Your task to perform on an android device: What's the weather going to be this weekend? Image 0: 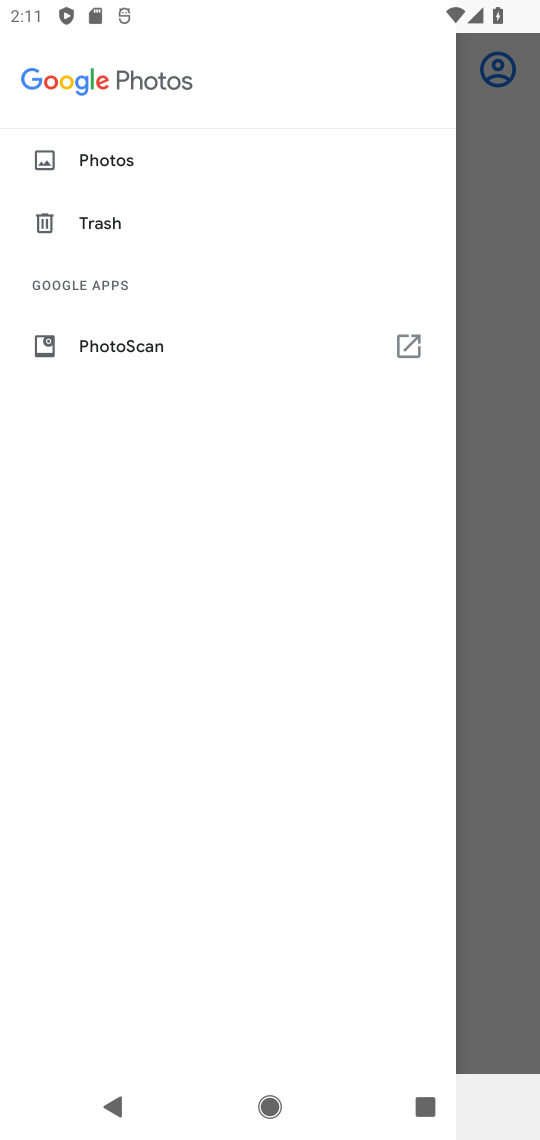
Step 0: press home button
Your task to perform on an android device: What's the weather going to be this weekend? Image 1: 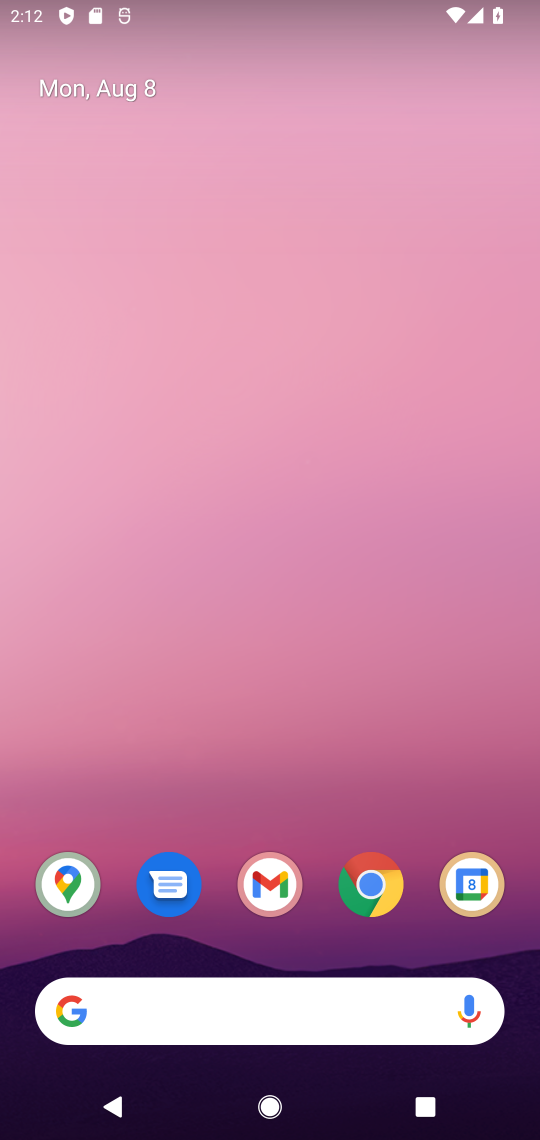
Step 1: click (205, 1005)
Your task to perform on an android device: What's the weather going to be this weekend? Image 2: 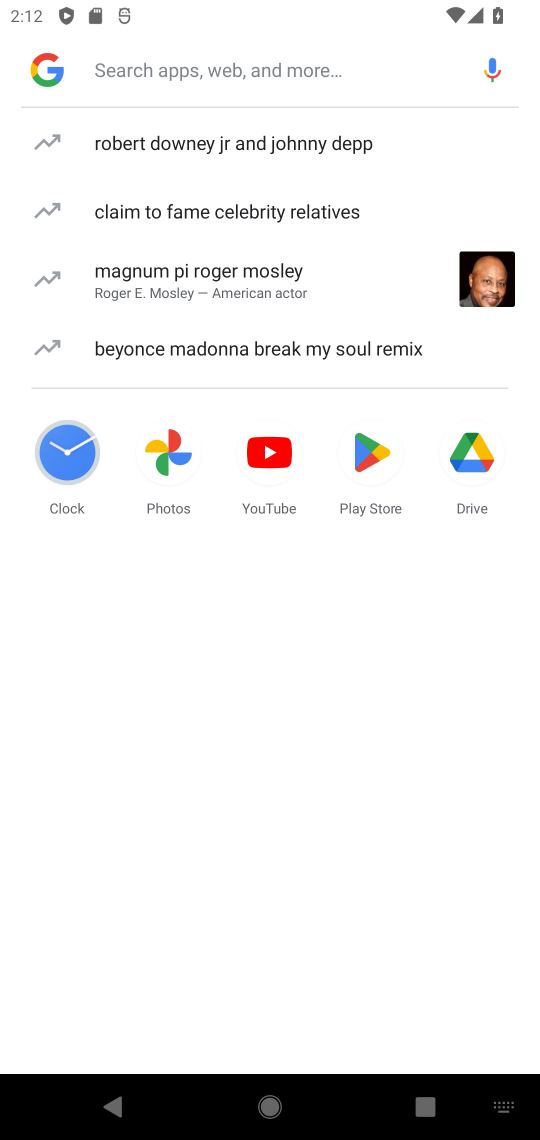
Step 2: type "Is it going to rain tomorrow"
Your task to perform on an android device: What's the weather going to be this weekend? Image 3: 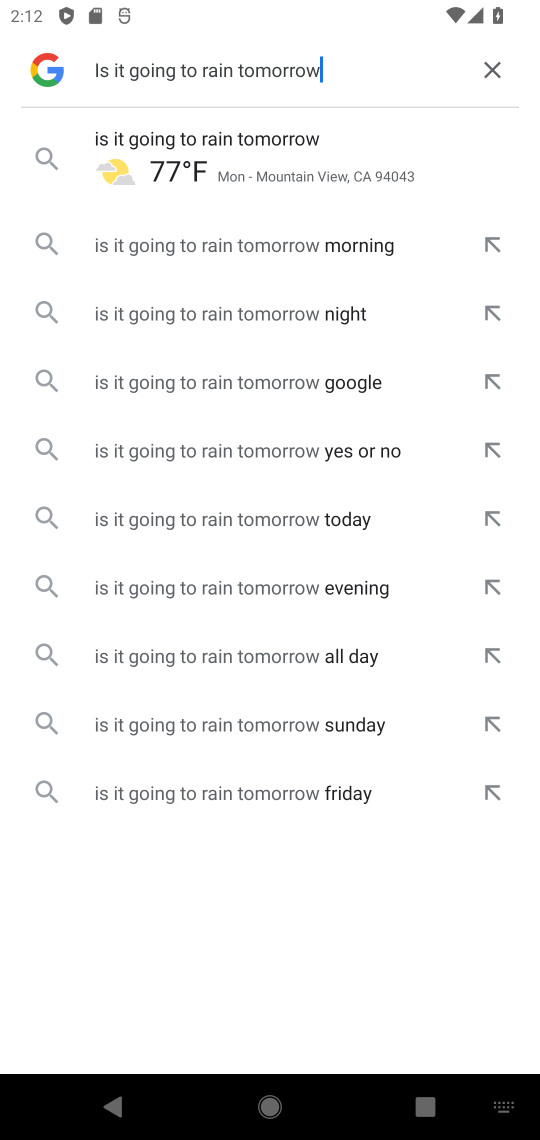
Step 3: click (201, 132)
Your task to perform on an android device: What's the weather going to be this weekend? Image 4: 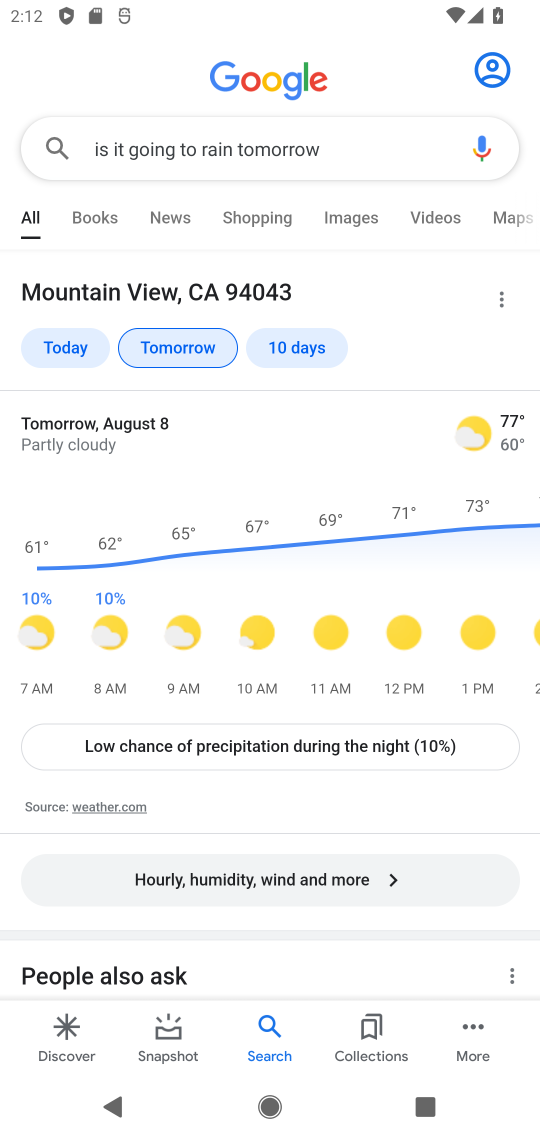
Step 4: click (282, 338)
Your task to perform on an android device: What's the weather going to be this weekend? Image 5: 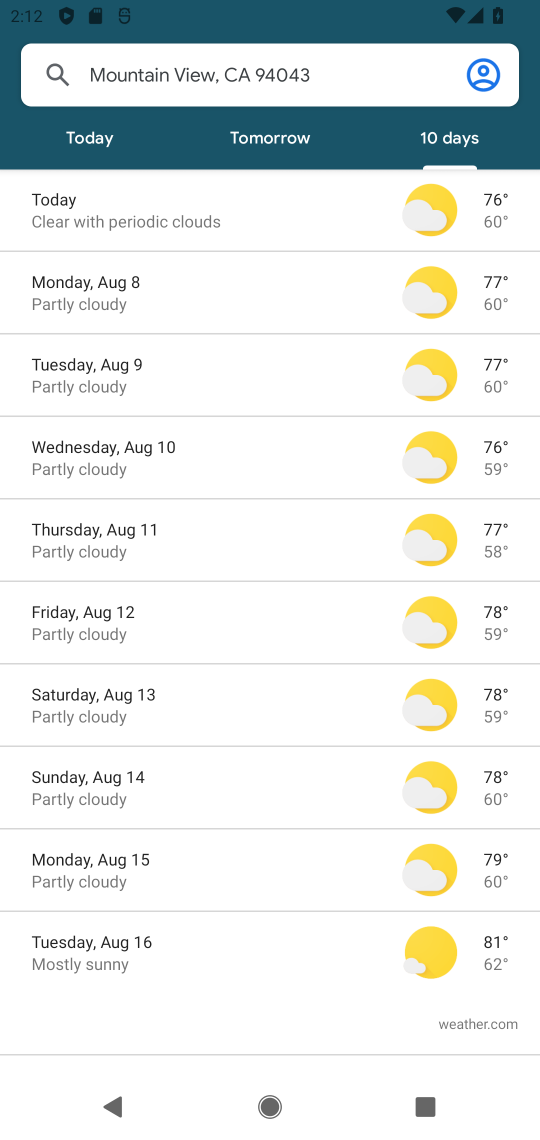
Step 5: task complete